Your task to perform on an android device: open app "Microsoft Excel" Image 0: 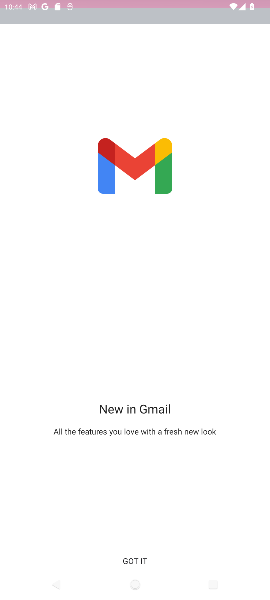
Step 0: click (247, 117)
Your task to perform on an android device: open app "Microsoft Excel" Image 1: 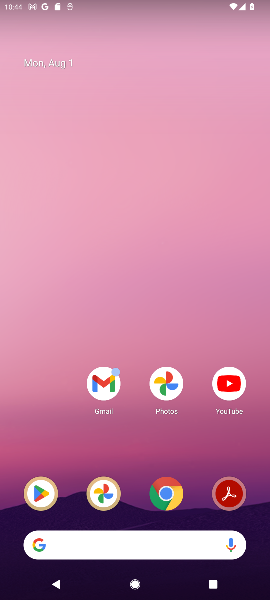
Step 1: click (40, 501)
Your task to perform on an android device: open app "Microsoft Excel" Image 2: 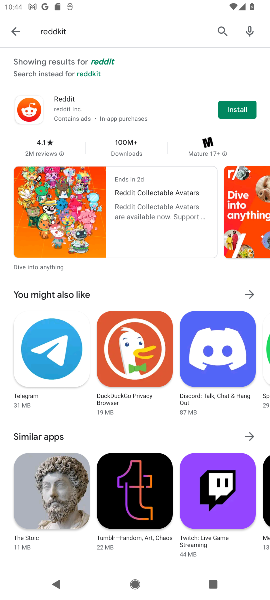
Step 2: click (160, 38)
Your task to perform on an android device: open app "Microsoft Excel" Image 3: 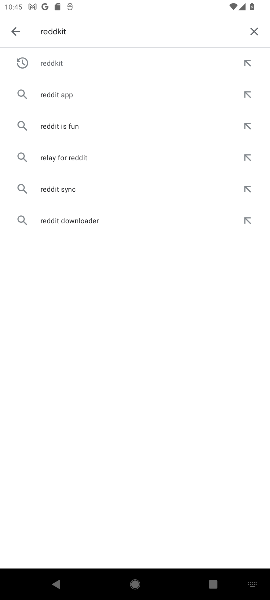
Step 3: click (221, 38)
Your task to perform on an android device: open app "Microsoft Excel" Image 4: 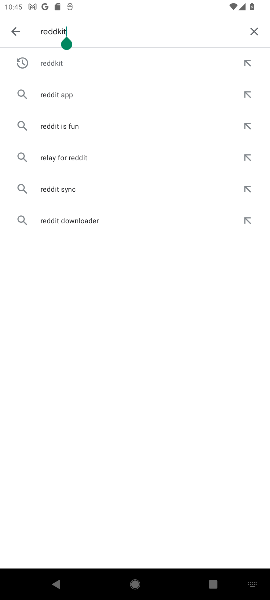
Step 4: click (243, 36)
Your task to perform on an android device: open app "Microsoft Excel" Image 5: 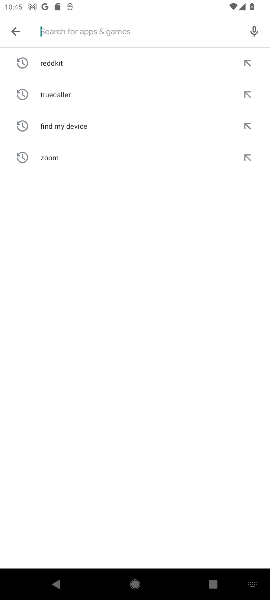
Step 5: type "microsoft"
Your task to perform on an android device: open app "Microsoft Excel" Image 6: 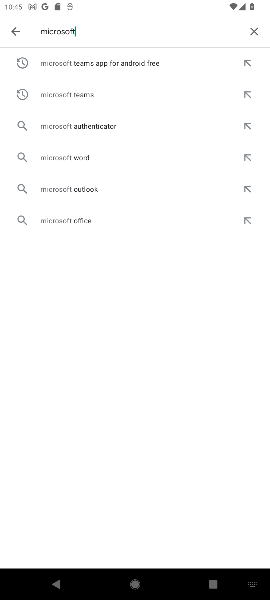
Step 6: click (165, 72)
Your task to perform on an android device: open app "Microsoft Excel" Image 7: 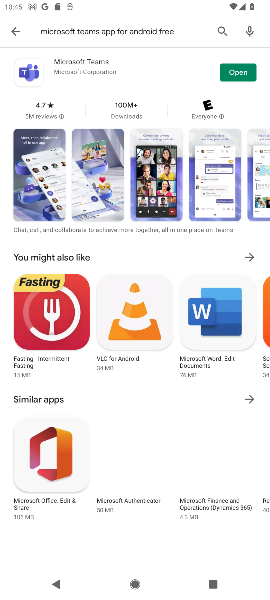
Step 7: task complete